Your task to perform on an android device: Open the phone app and click the voicemail tab. Image 0: 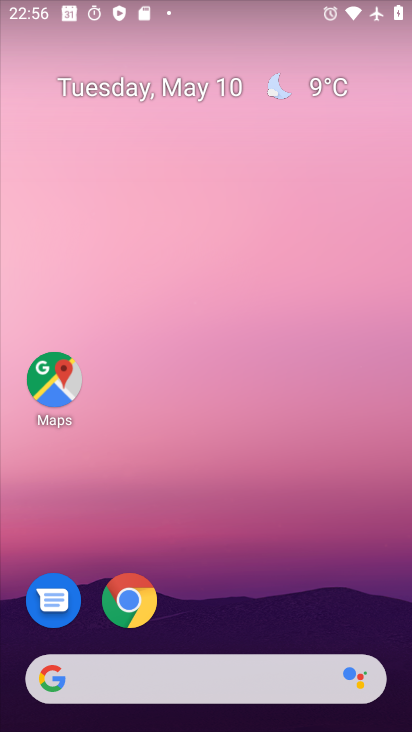
Step 0: drag from (330, 579) to (247, 174)
Your task to perform on an android device: Open the phone app and click the voicemail tab. Image 1: 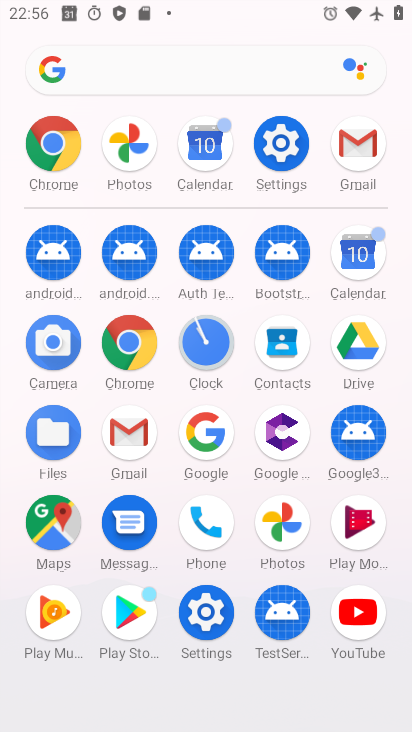
Step 1: click (219, 524)
Your task to perform on an android device: Open the phone app and click the voicemail tab. Image 2: 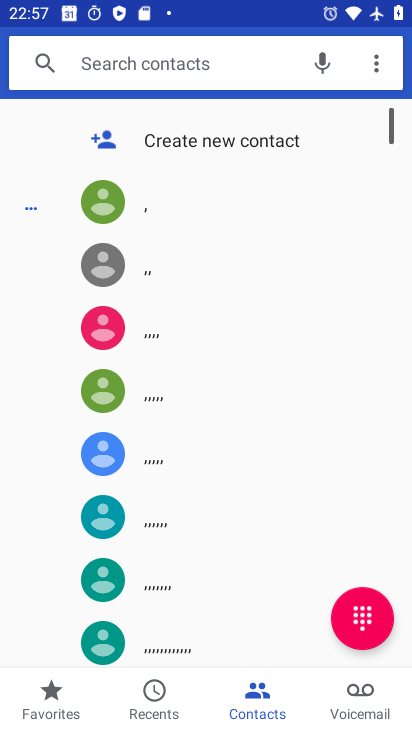
Step 2: click (358, 694)
Your task to perform on an android device: Open the phone app and click the voicemail tab. Image 3: 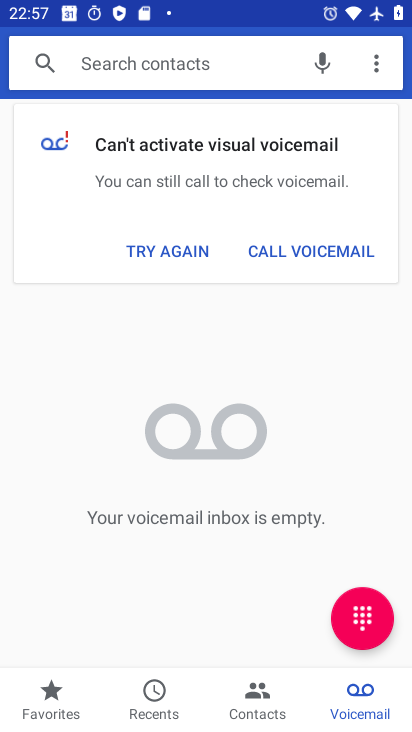
Step 3: task complete